Your task to perform on an android device: delete the emails in spam in the gmail app Image 0: 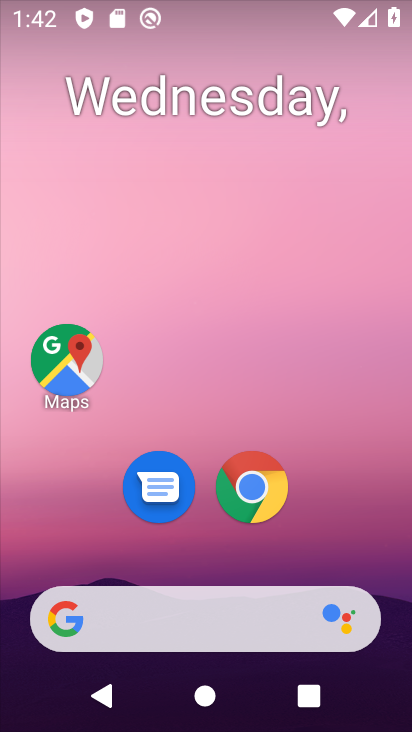
Step 0: drag from (290, 537) to (409, 514)
Your task to perform on an android device: delete the emails in spam in the gmail app Image 1: 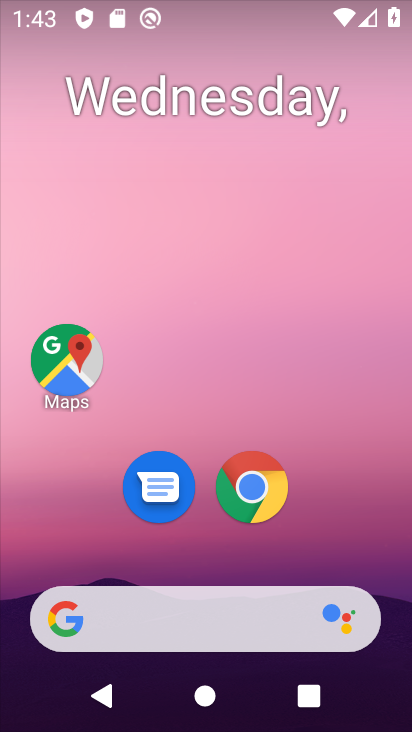
Step 1: drag from (211, 609) to (216, 66)
Your task to perform on an android device: delete the emails in spam in the gmail app Image 2: 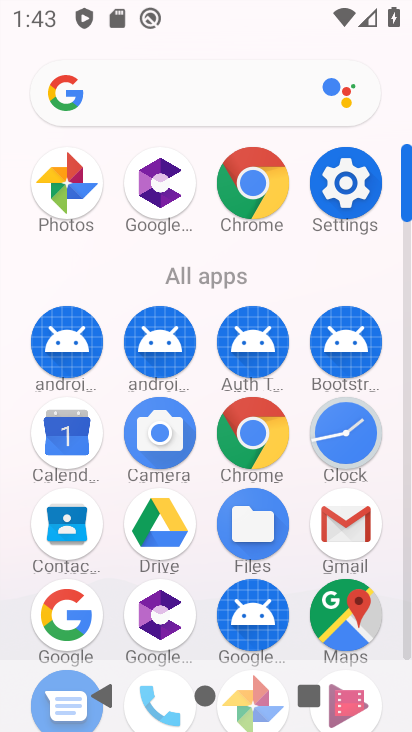
Step 2: click (334, 532)
Your task to perform on an android device: delete the emails in spam in the gmail app Image 3: 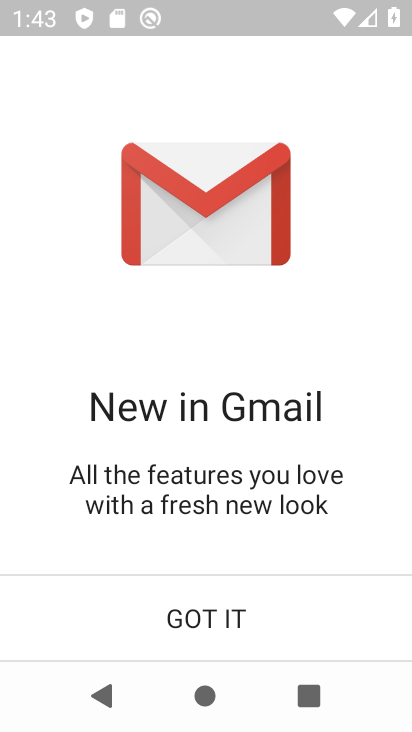
Step 3: click (236, 620)
Your task to perform on an android device: delete the emails in spam in the gmail app Image 4: 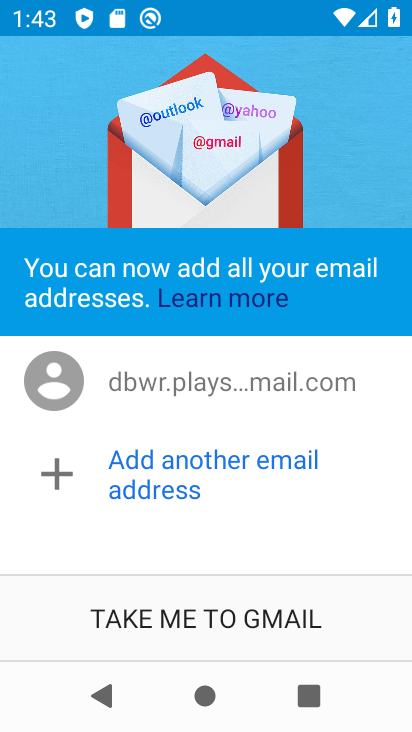
Step 4: click (236, 620)
Your task to perform on an android device: delete the emails in spam in the gmail app Image 5: 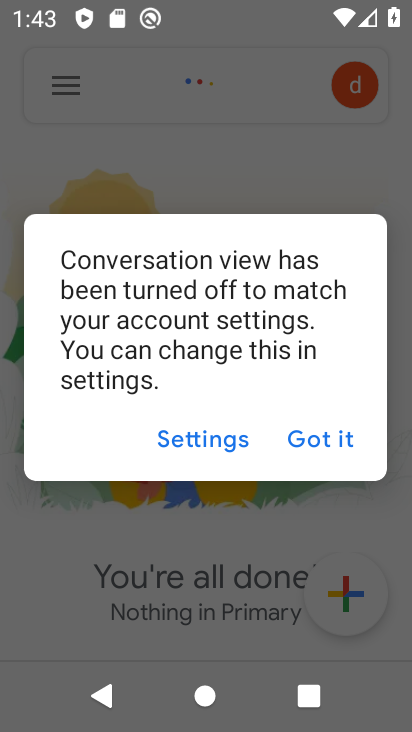
Step 5: click (309, 448)
Your task to perform on an android device: delete the emails in spam in the gmail app Image 6: 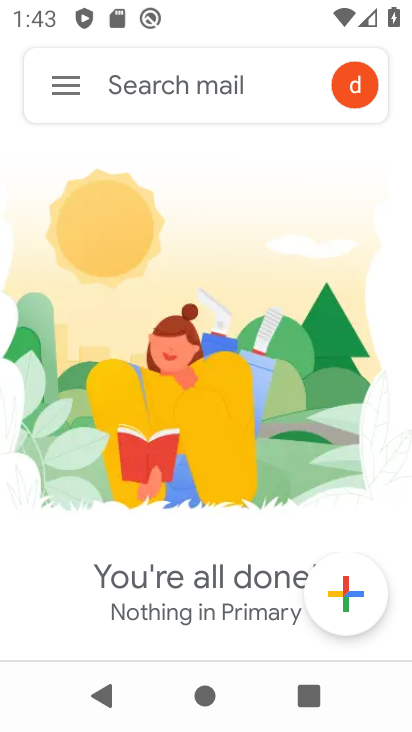
Step 6: click (60, 98)
Your task to perform on an android device: delete the emails in spam in the gmail app Image 7: 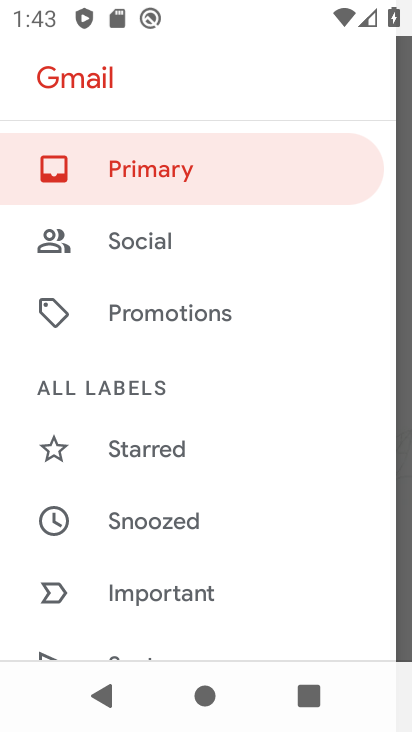
Step 7: drag from (178, 576) to (170, 58)
Your task to perform on an android device: delete the emails in spam in the gmail app Image 8: 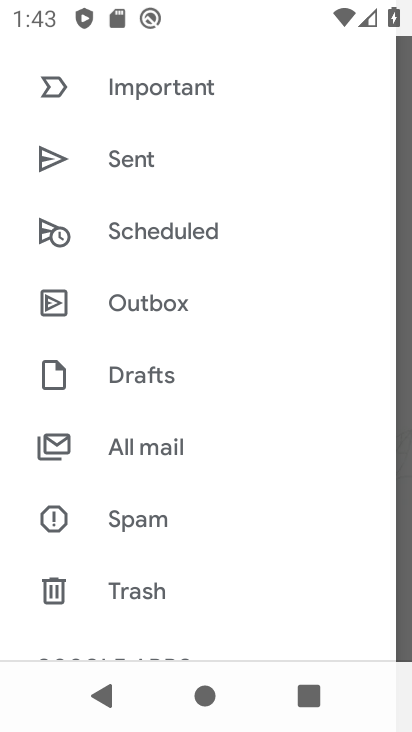
Step 8: click (161, 534)
Your task to perform on an android device: delete the emails in spam in the gmail app Image 9: 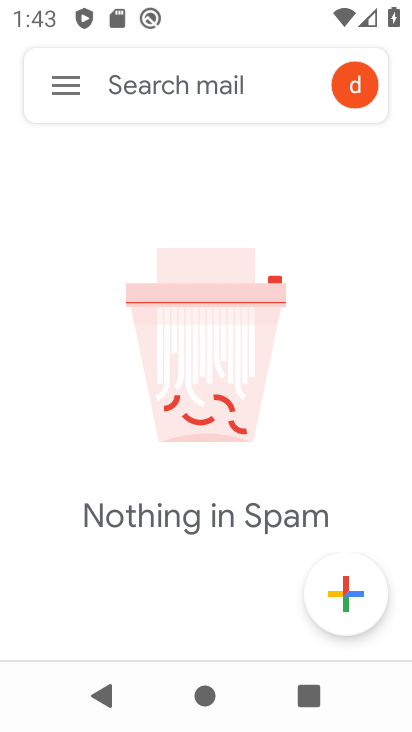
Step 9: task complete